Your task to perform on an android device: Check the news Image 0: 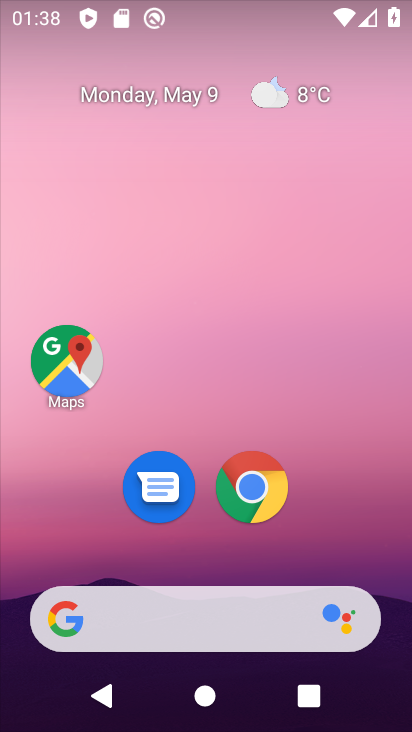
Step 0: drag from (7, 220) to (403, 331)
Your task to perform on an android device: Check the news Image 1: 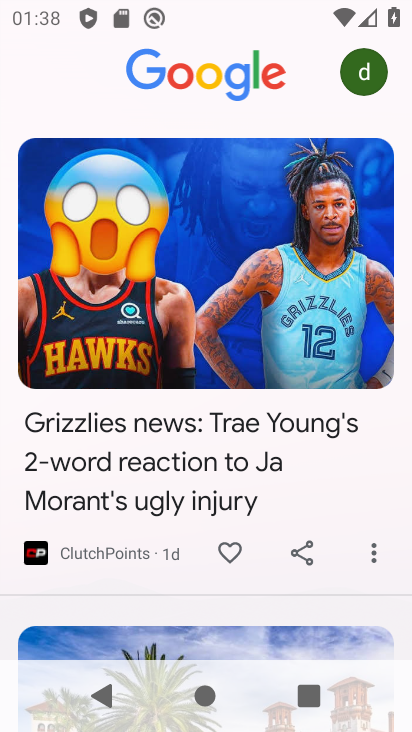
Step 1: task complete